Your task to perform on an android device: Do I have any events this weekend? Image 0: 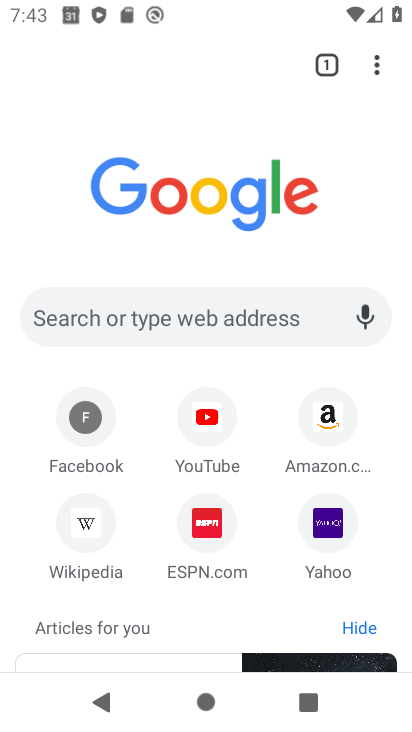
Step 0: press home button
Your task to perform on an android device: Do I have any events this weekend? Image 1: 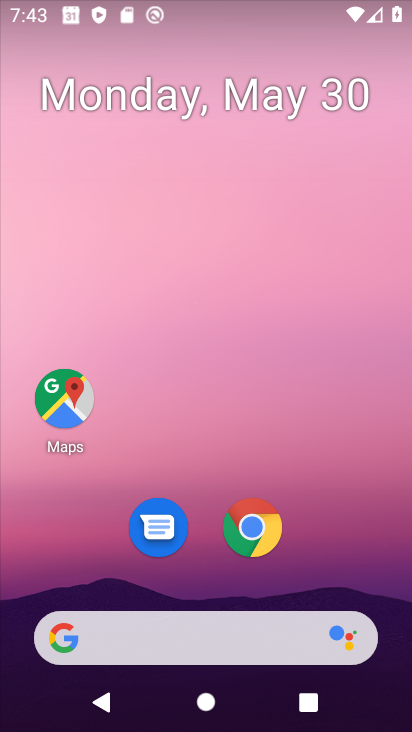
Step 1: drag from (203, 580) to (205, 0)
Your task to perform on an android device: Do I have any events this weekend? Image 2: 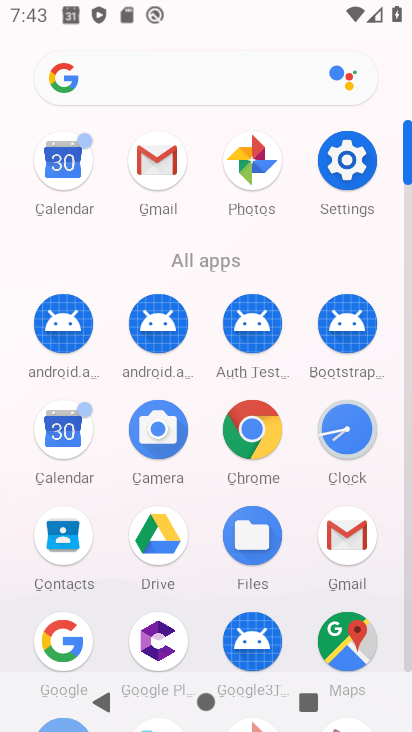
Step 2: click (77, 165)
Your task to perform on an android device: Do I have any events this weekend? Image 3: 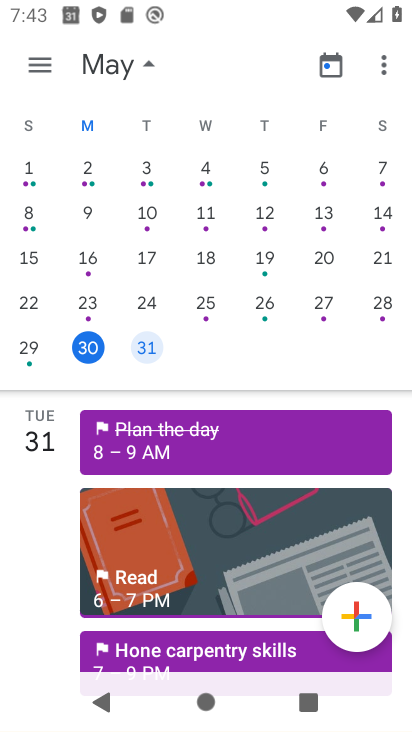
Step 3: drag from (386, 342) to (12, 353)
Your task to perform on an android device: Do I have any events this weekend? Image 4: 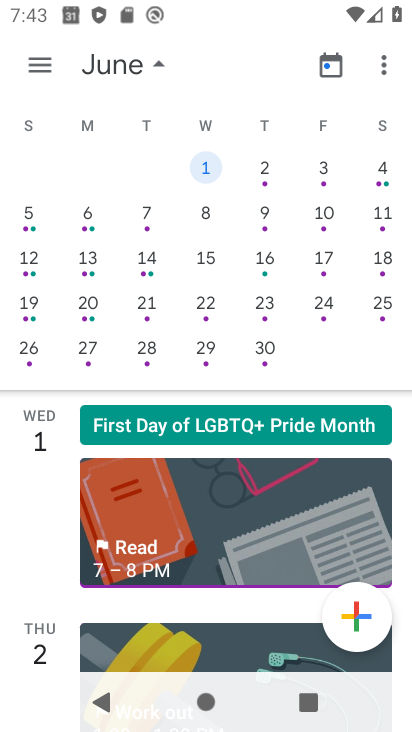
Step 4: click (335, 176)
Your task to perform on an android device: Do I have any events this weekend? Image 5: 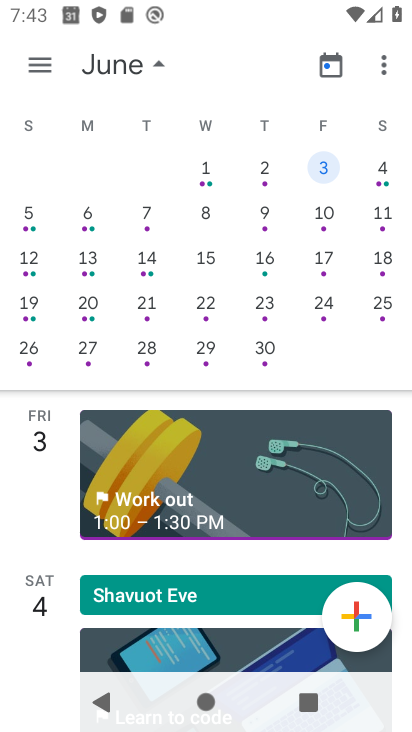
Step 5: click (373, 171)
Your task to perform on an android device: Do I have any events this weekend? Image 6: 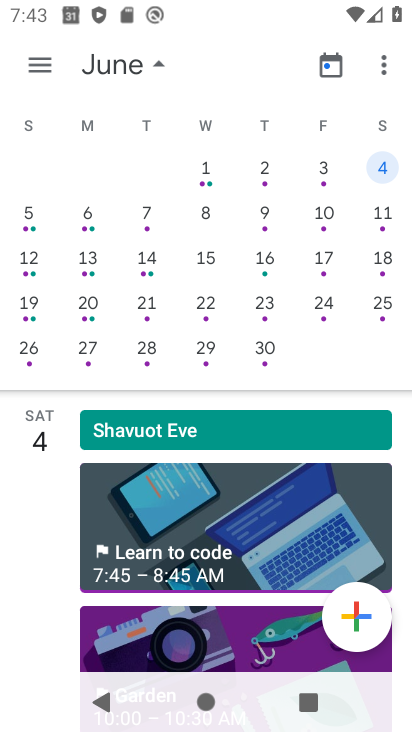
Step 6: task complete